Your task to perform on an android device: When is my next meeting? Image 0: 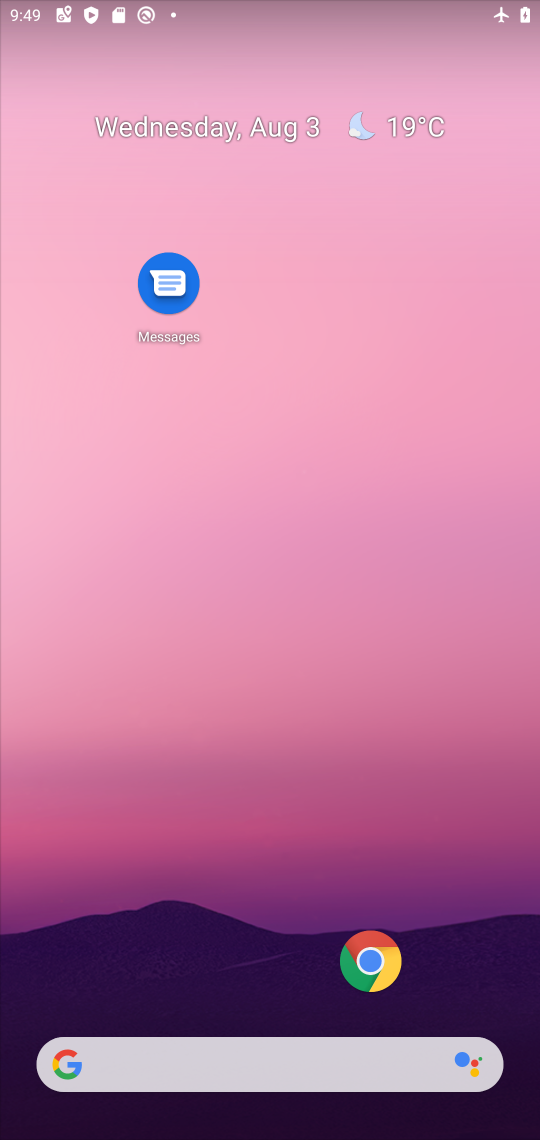
Step 0: click (281, 1065)
Your task to perform on an android device: When is my next meeting? Image 1: 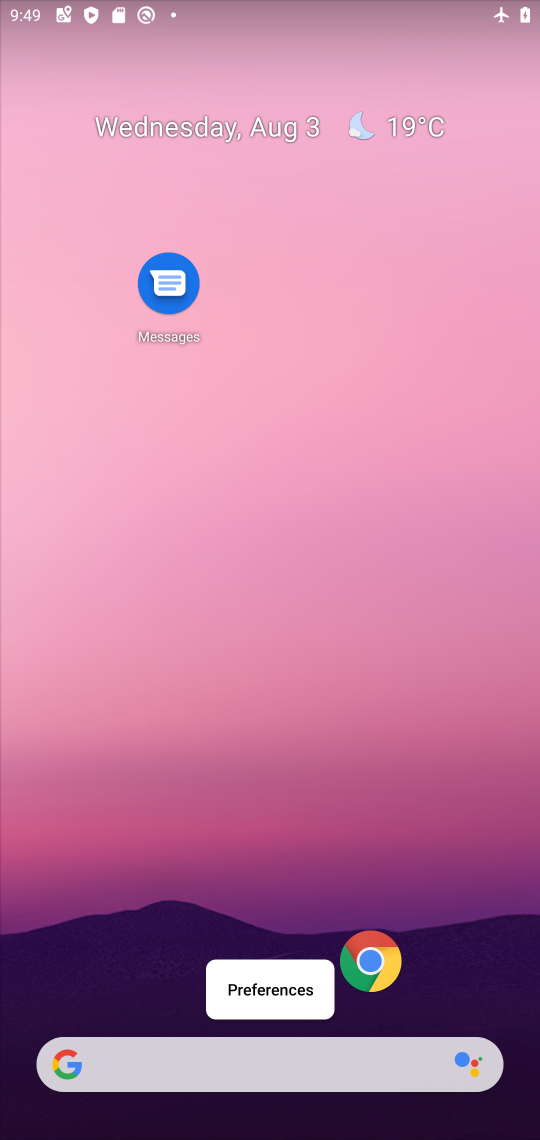
Step 1: click (297, 1081)
Your task to perform on an android device: When is my next meeting? Image 2: 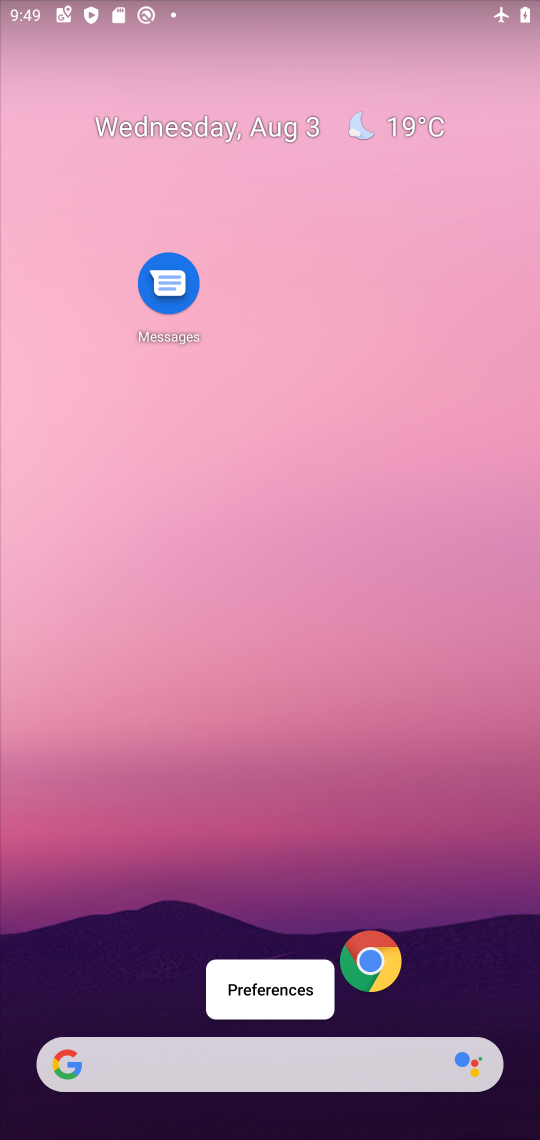
Step 2: drag from (201, 1023) to (204, 35)
Your task to perform on an android device: When is my next meeting? Image 3: 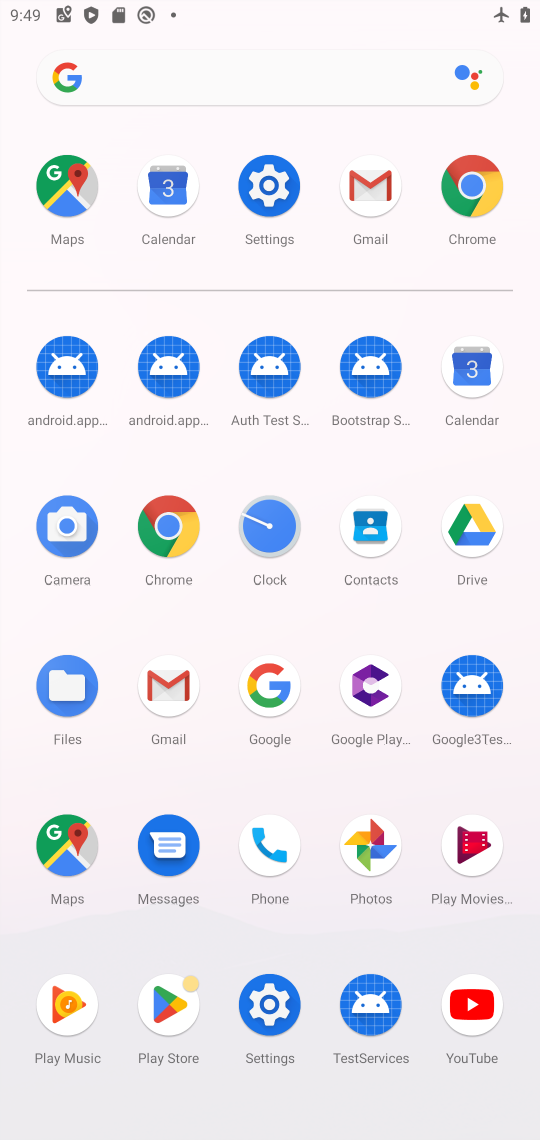
Step 3: click (466, 354)
Your task to perform on an android device: When is my next meeting? Image 4: 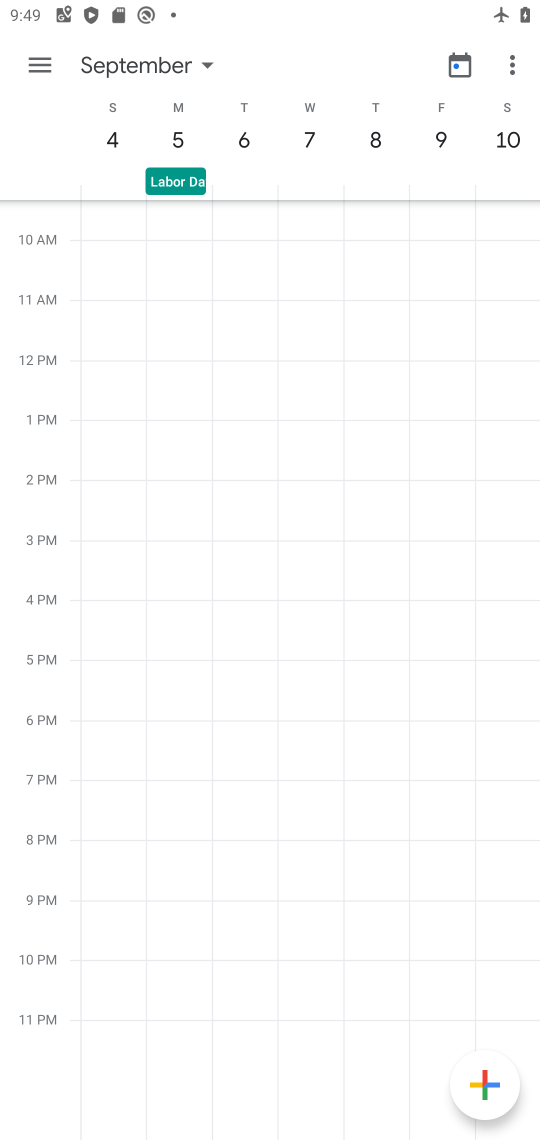
Step 4: task complete